Your task to perform on an android device: all mails in gmail Image 0: 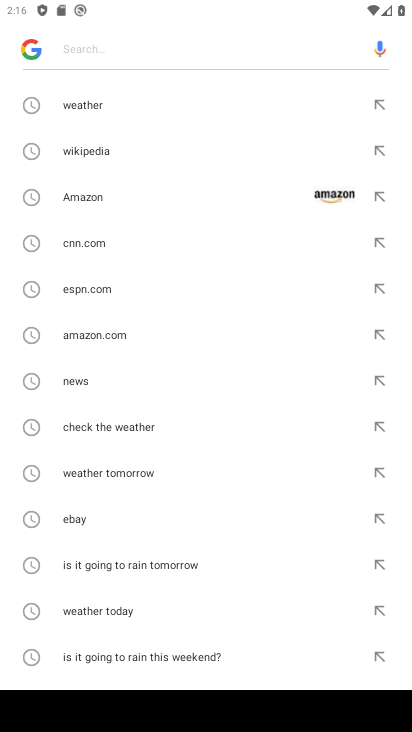
Step 0: press home button
Your task to perform on an android device: all mails in gmail Image 1: 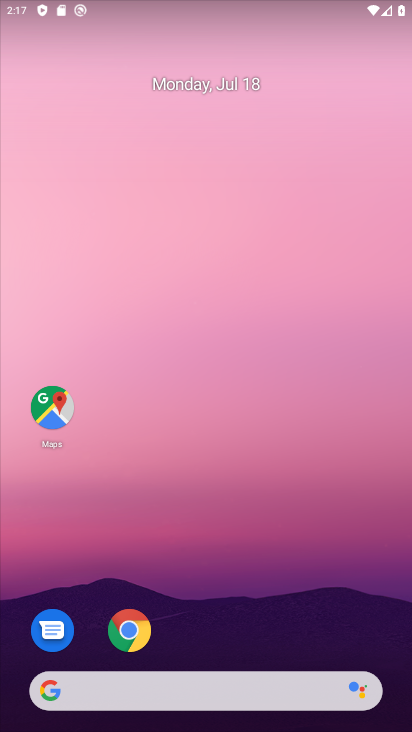
Step 1: drag from (299, 613) to (181, 62)
Your task to perform on an android device: all mails in gmail Image 2: 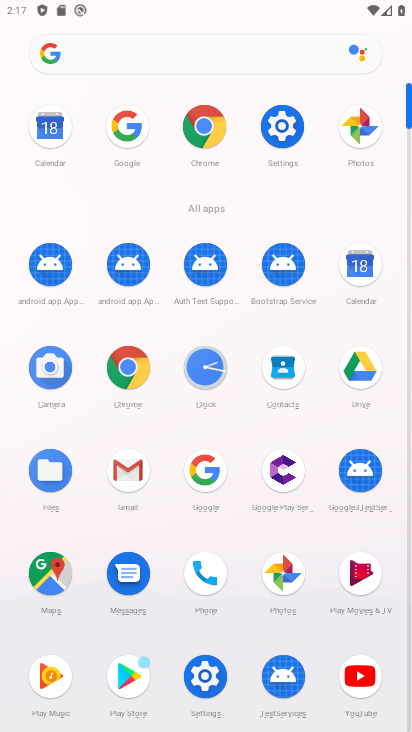
Step 2: click (136, 490)
Your task to perform on an android device: all mails in gmail Image 3: 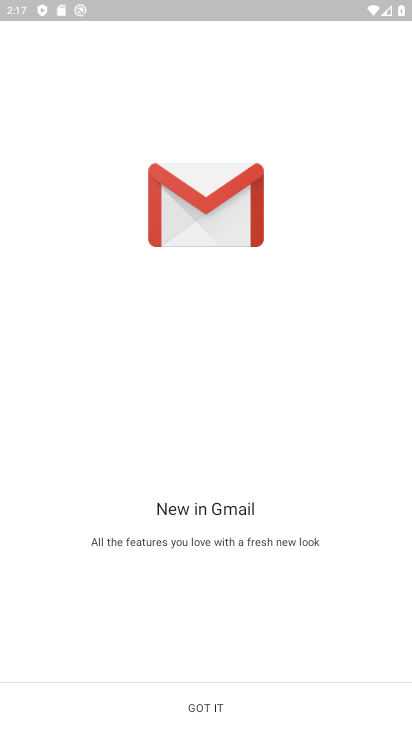
Step 3: click (203, 698)
Your task to perform on an android device: all mails in gmail Image 4: 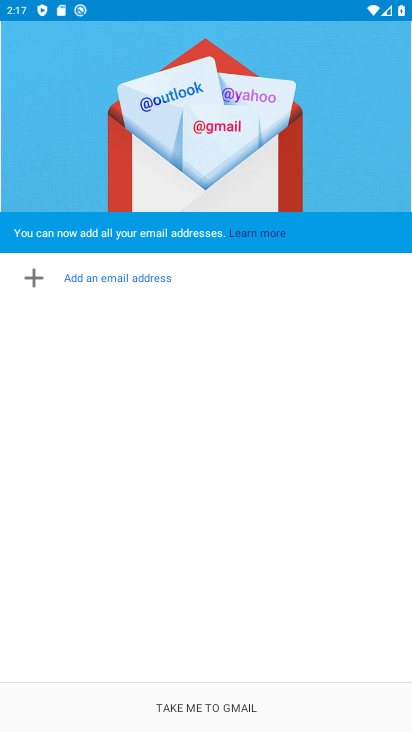
Step 4: click (203, 698)
Your task to perform on an android device: all mails in gmail Image 5: 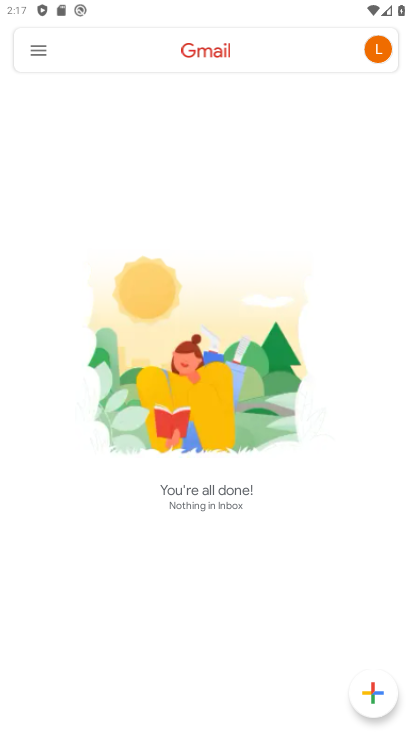
Step 5: click (25, 48)
Your task to perform on an android device: all mails in gmail Image 6: 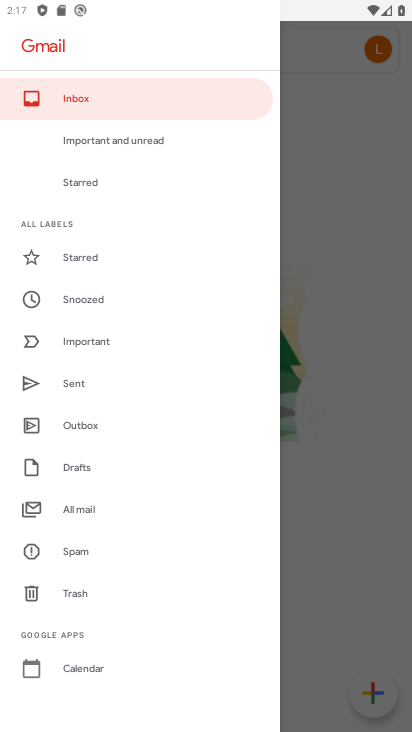
Step 6: click (77, 513)
Your task to perform on an android device: all mails in gmail Image 7: 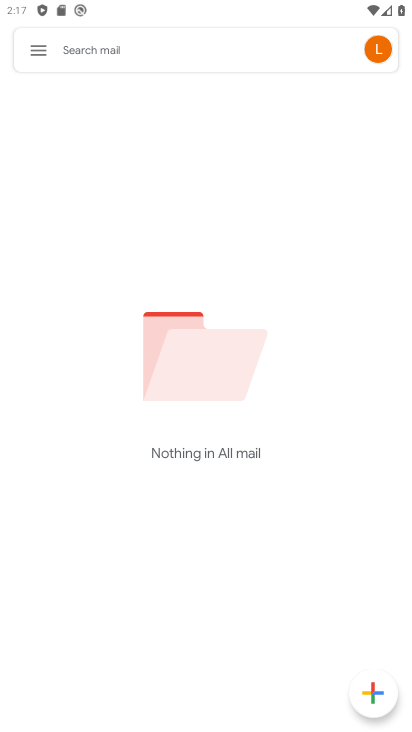
Step 7: task complete